Your task to perform on an android device: set the timer Image 0: 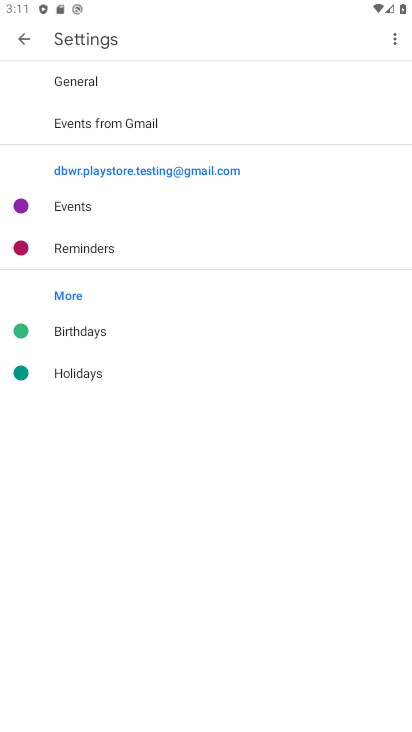
Step 0: press home button
Your task to perform on an android device: set the timer Image 1: 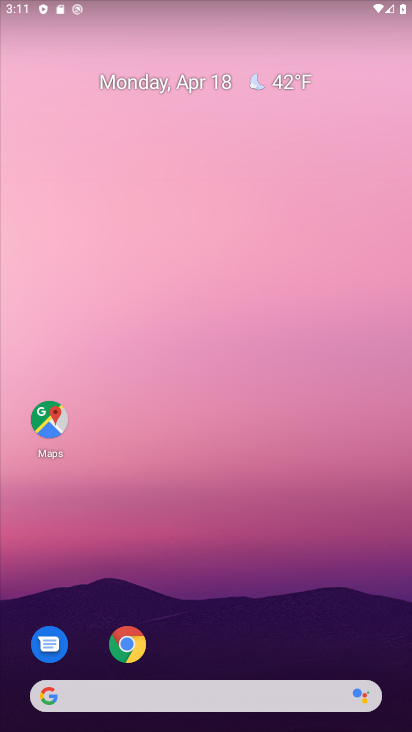
Step 1: drag from (269, 609) to (267, 95)
Your task to perform on an android device: set the timer Image 2: 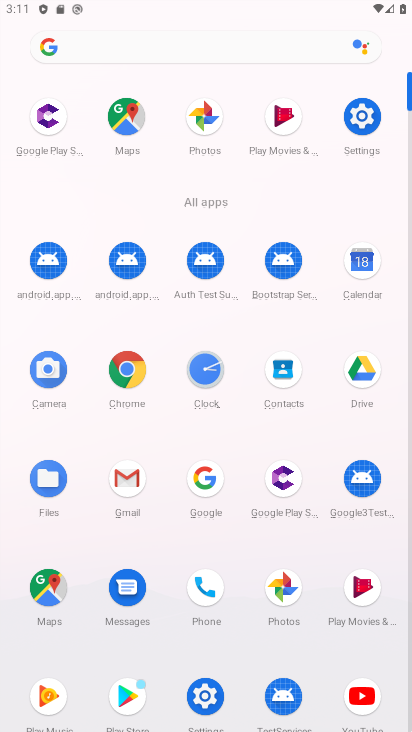
Step 2: click (206, 368)
Your task to perform on an android device: set the timer Image 3: 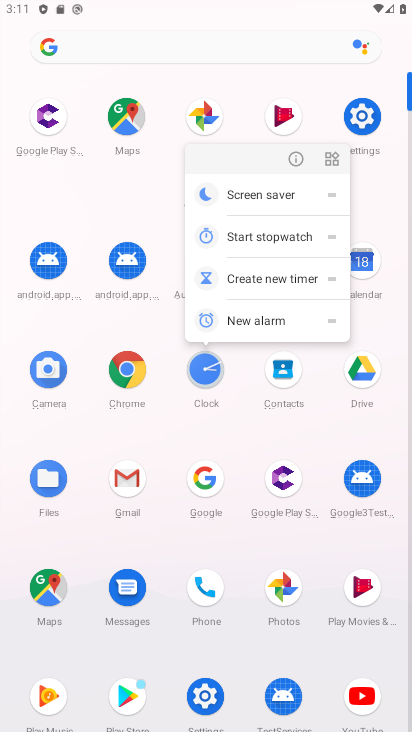
Step 3: click (206, 360)
Your task to perform on an android device: set the timer Image 4: 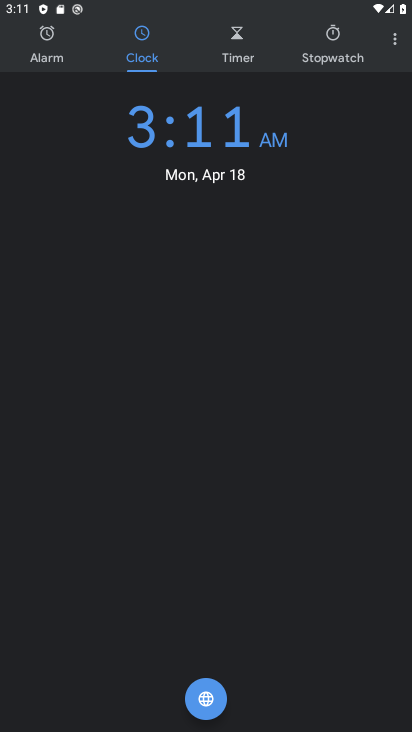
Step 4: click (237, 33)
Your task to perform on an android device: set the timer Image 5: 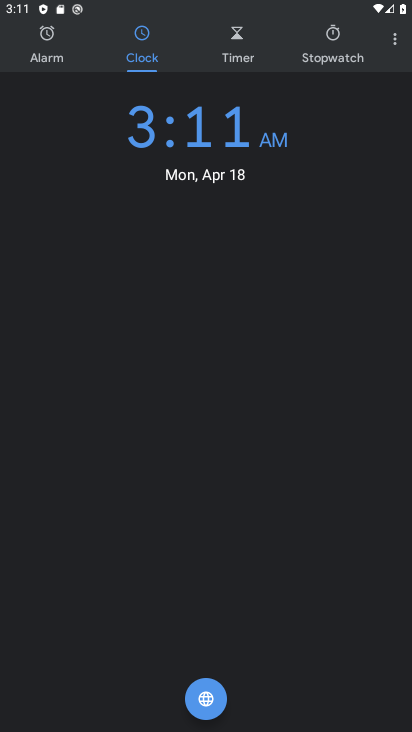
Step 5: click (237, 33)
Your task to perform on an android device: set the timer Image 6: 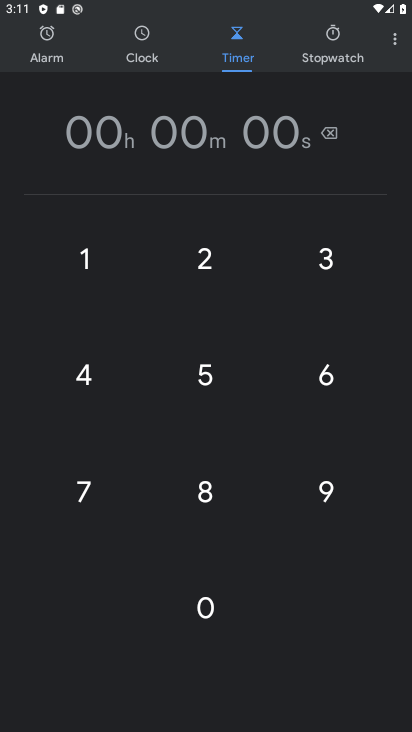
Step 6: click (83, 252)
Your task to perform on an android device: set the timer Image 7: 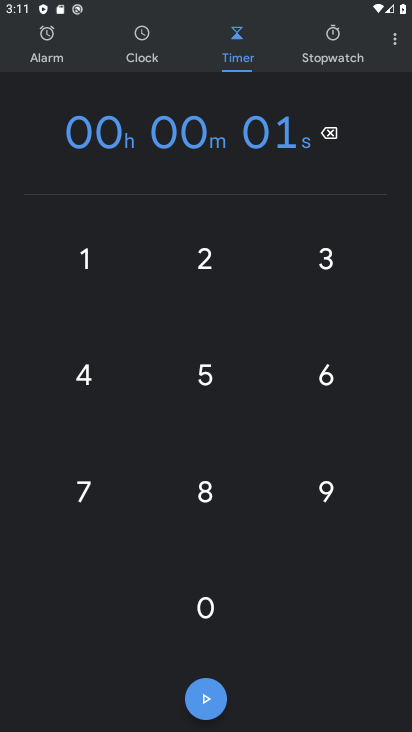
Step 7: click (206, 264)
Your task to perform on an android device: set the timer Image 8: 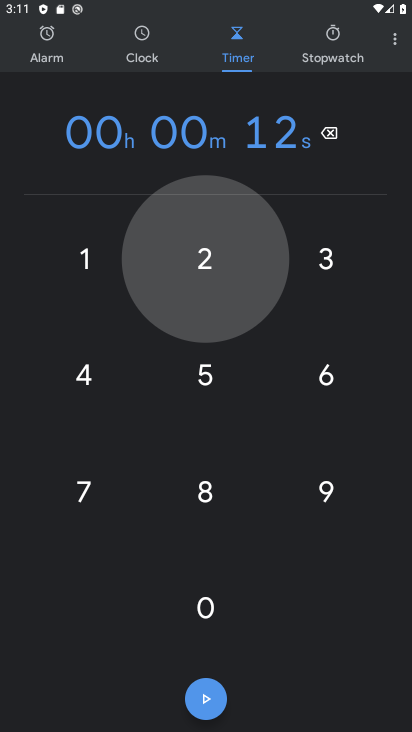
Step 8: click (223, 381)
Your task to perform on an android device: set the timer Image 9: 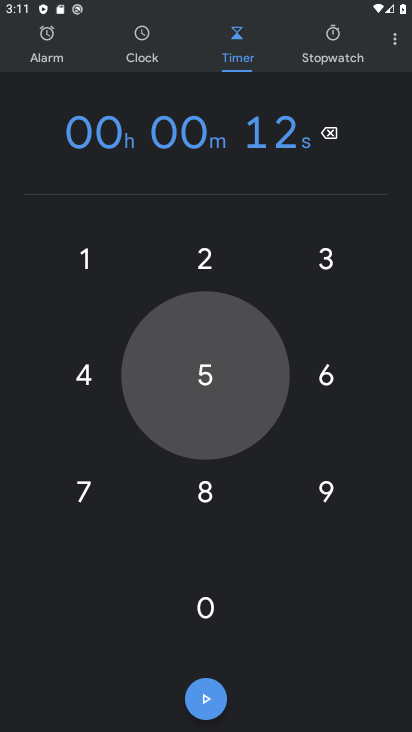
Step 9: click (307, 398)
Your task to perform on an android device: set the timer Image 10: 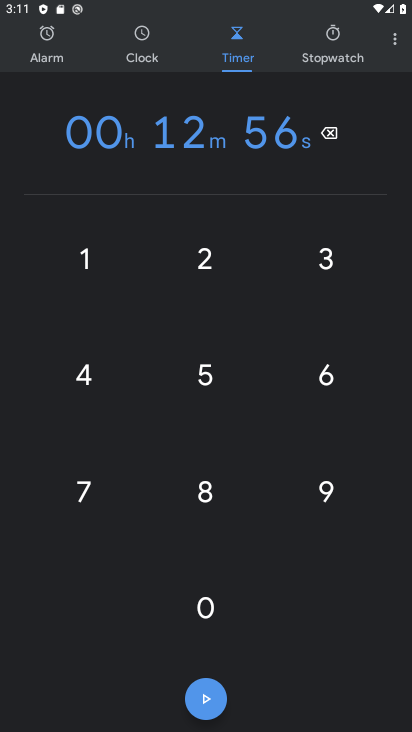
Step 10: click (211, 464)
Your task to perform on an android device: set the timer Image 11: 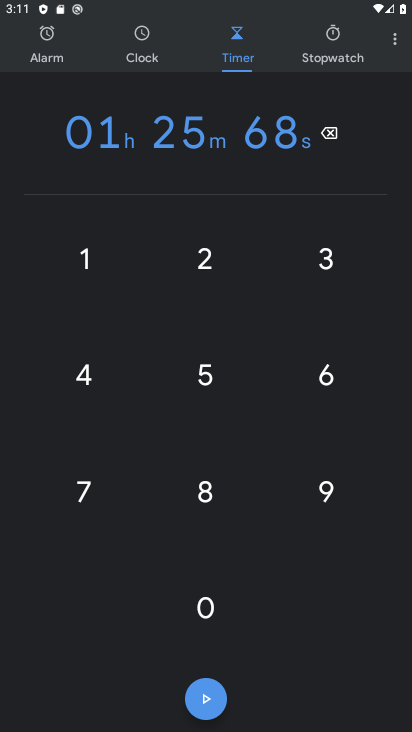
Step 11: click (199, 689)
Your task to perform on an android device: set the timer Image 12: 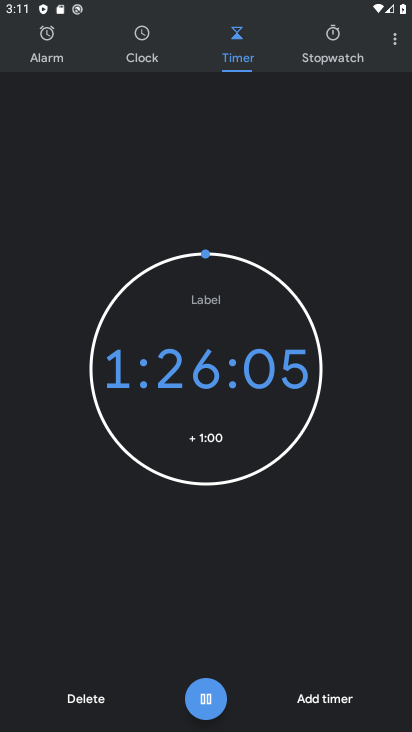
Step 12: task complete